Your task to perform on an android device: Open Yahoo.com Image 0: 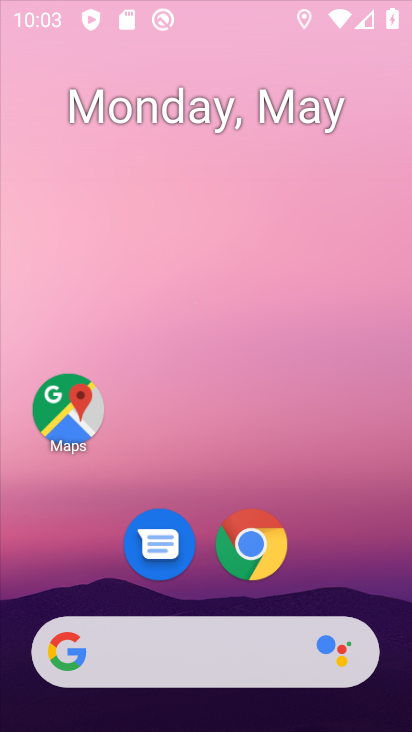
Step 0: drag from (282, 687) to (151, 208)
Your task to perform on an android device: Open Yahoo.com Image 1: 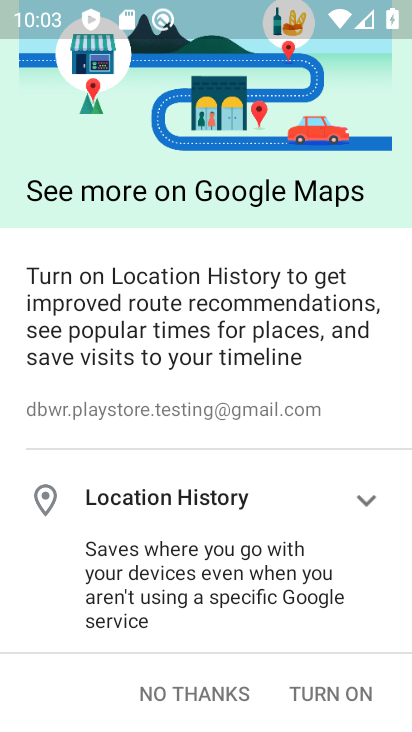
Step 1: press back button
Your task to perform on an android device: Open Yahoo.com Image 2: 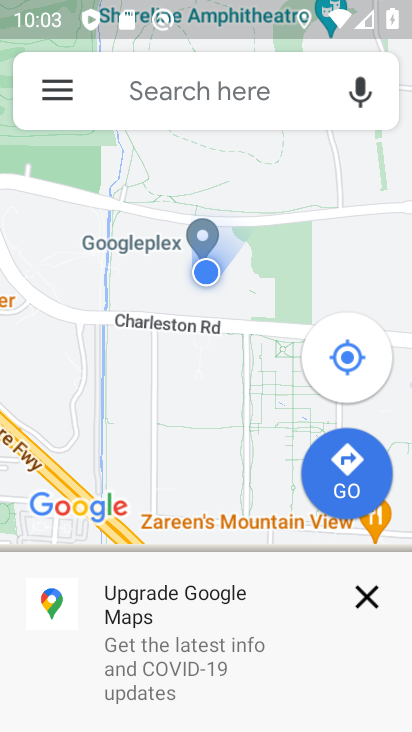
Step 2: press home button
Your task to perform on an android device: Open Yahoo.com Image 3: 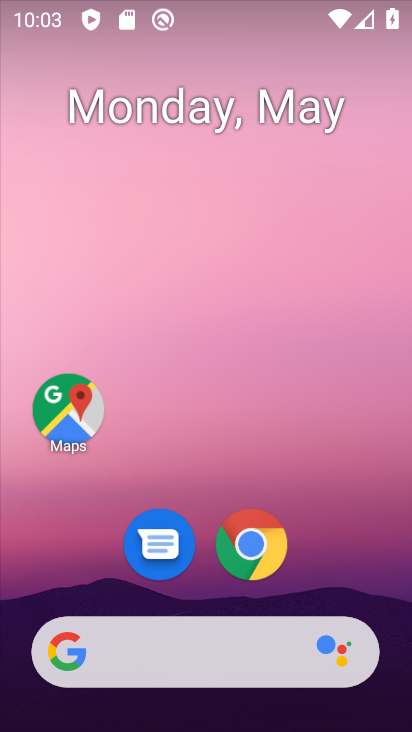
Step 3: drag from (307, 719) to (109, 113)
Your task to perform on an android device: Open Yahoo.com Image 4: 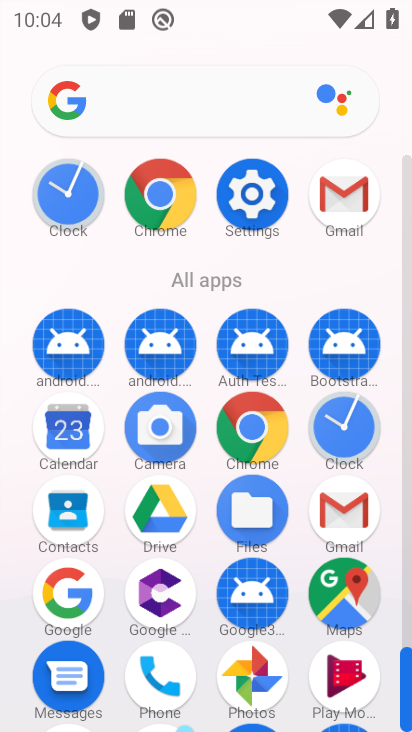
Step 4: drag from (272, 582) to (256, 152)
Your task to perform on an android device: Open Yahoo.com Image 5: 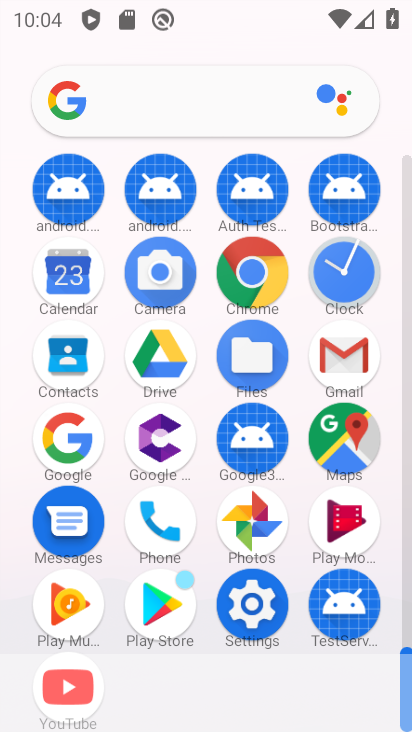
Step 5: click (252, 284)
Your task to perform on an android device: Open Yahoo.com Image 6: 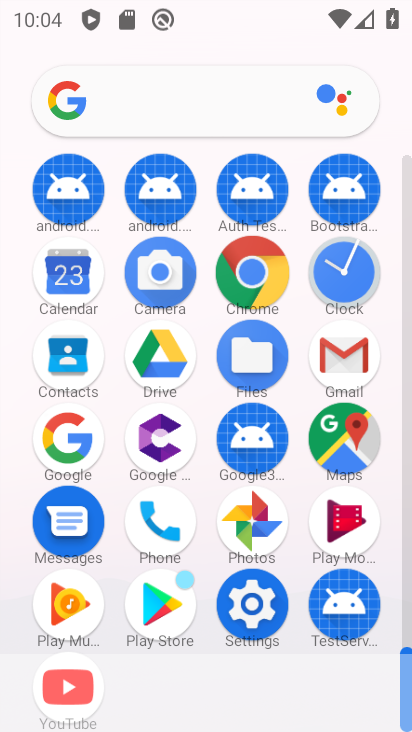
Step 6: click (252, 284)
Your task to perform on an android device: Open Yahoo.com Image 7: 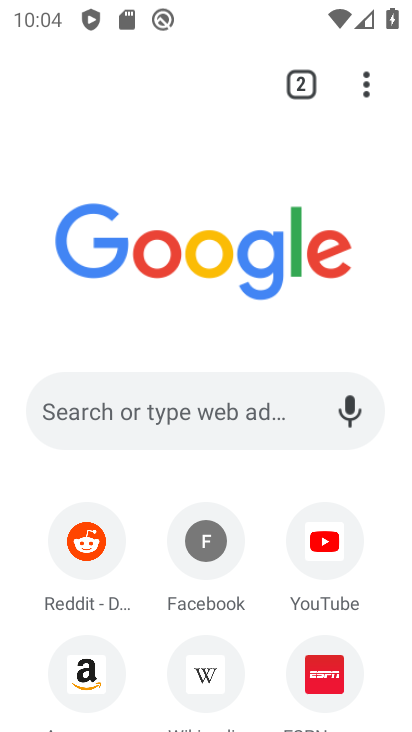
Step 7: drag from (226, 638) to (157, 256)
Your task to perform on an android device: Open Yahoo.com Image 8: 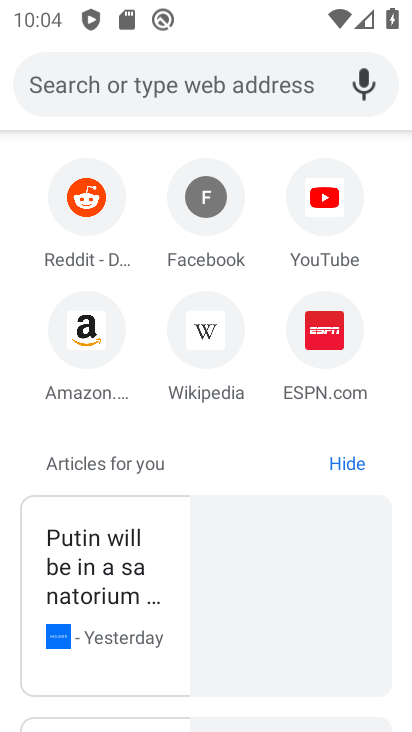
Step 8: drag from (206, 503) to (174, 137)
Your task to perform on an android device: Open Yahoo.com Image 9: 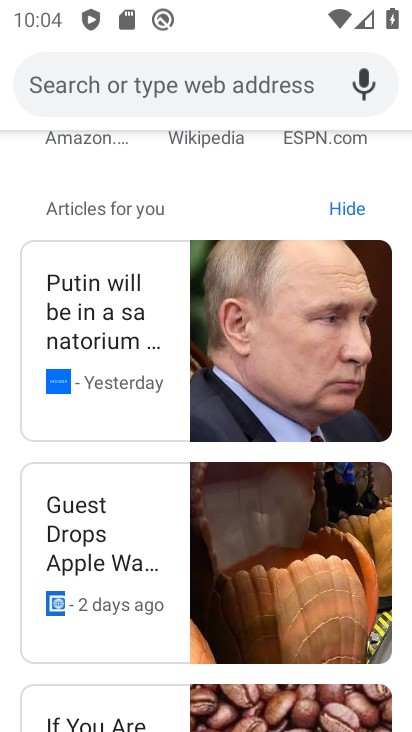
Step 9: click (277, 543)
Your task to perform on an android device: Open Yahoo.com Image 10: 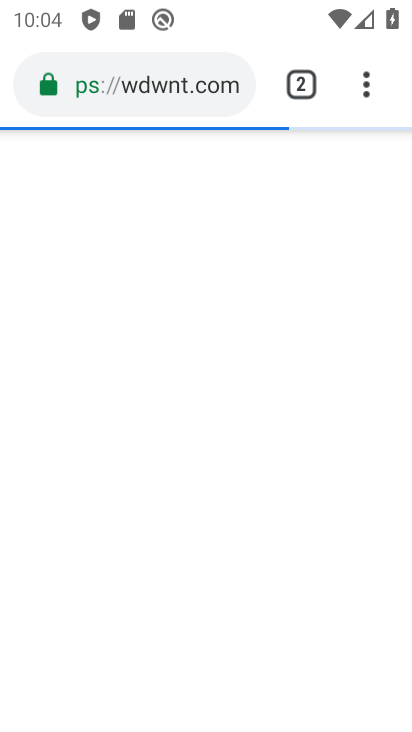
Step 10: press back button
Your task to perform on an android device: Open Yahoo.com Image 11: 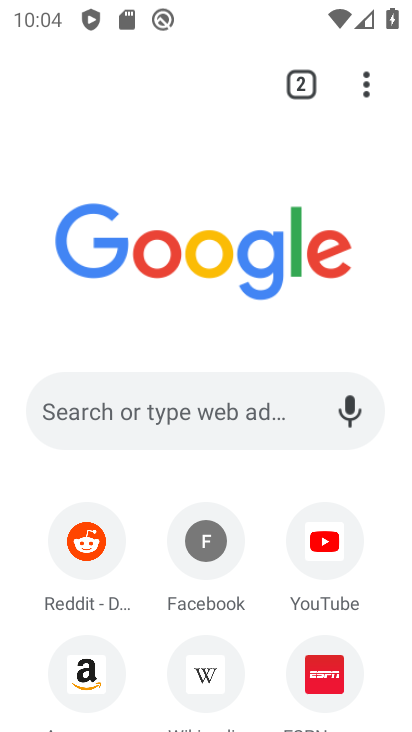
Step 11: click (57, 412)
Your task to perform on an android device: Open Yahoo.com Image 12: 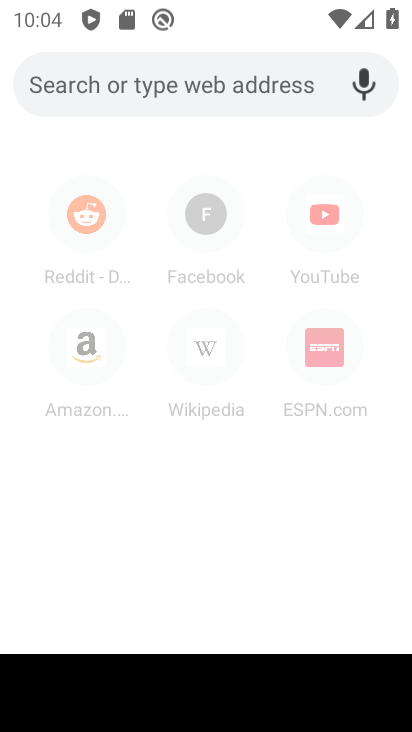
Step 12: type "yahoo.com"
Your task to perform on an android device: Open Yahoo.com Image 13: 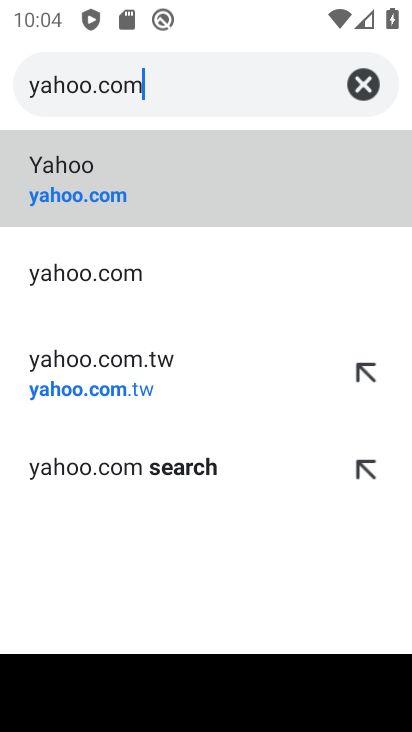
Step 13: click (49, 157)
Your task to perform on an android device: Open Yahoo.com Image 14: 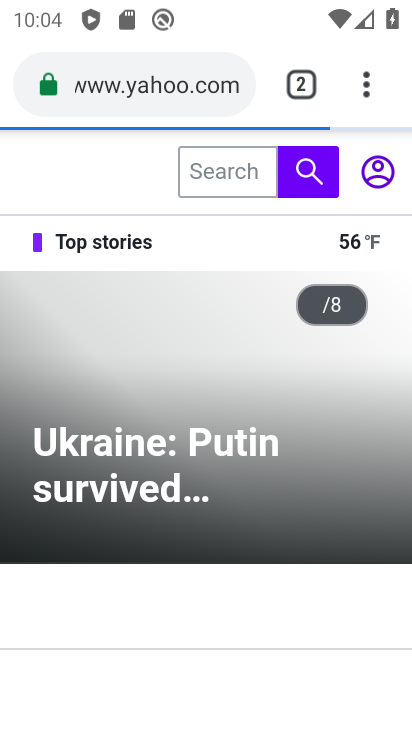
Step 14: task complete